Your task to perform on an android device: star an email in the gmail app Image 0: 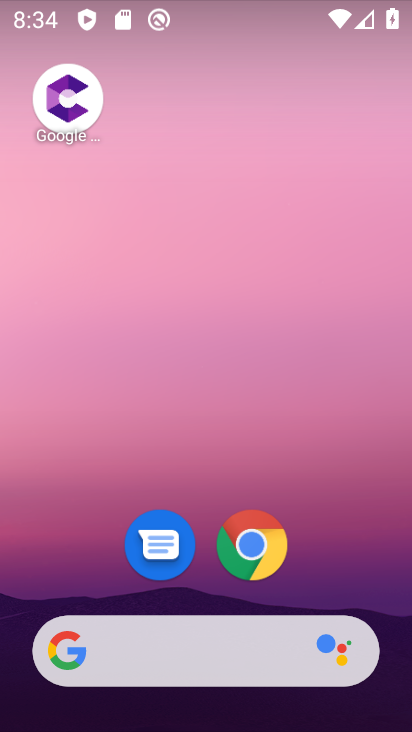
Step 0: drag from (331, 527) to (278, 18)
Your task to perform on an android device: star an email in the gmail app Image 1: 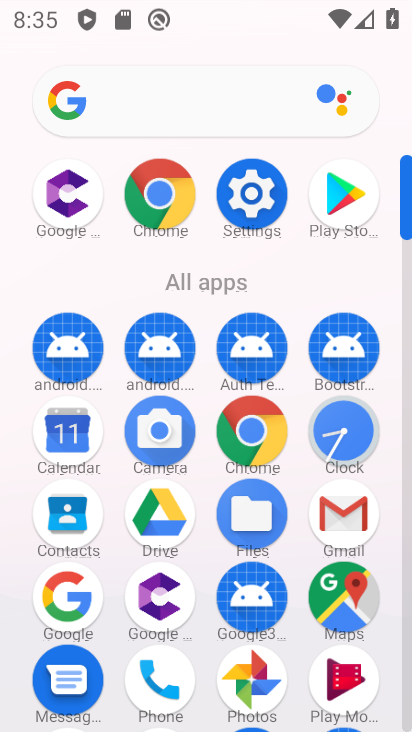
Step 1: drag from (12, 592) to (7, 301)
Your task to perform on an android device: star an email in the gmail app Image 2: 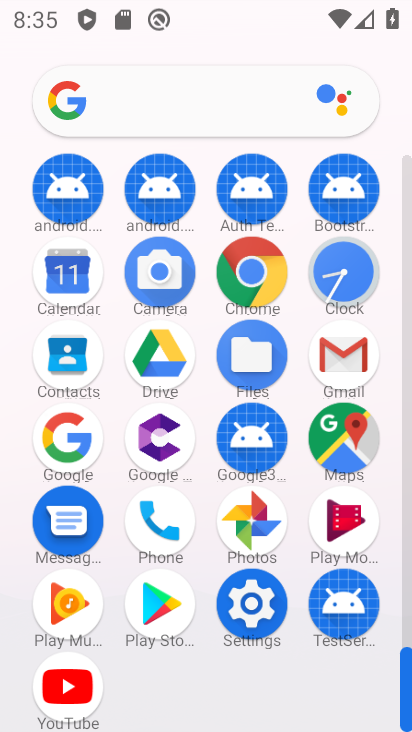
Step 2: click (339, 348)
Your task to perform on an android device: star an email in the gmail app Image 3: 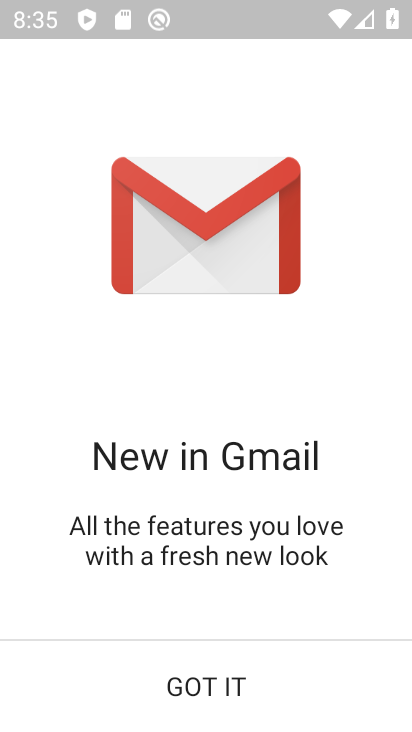
Step 3: click (209, 692)
Your task to perform on an android device: star an email in the gmail app Image 4: 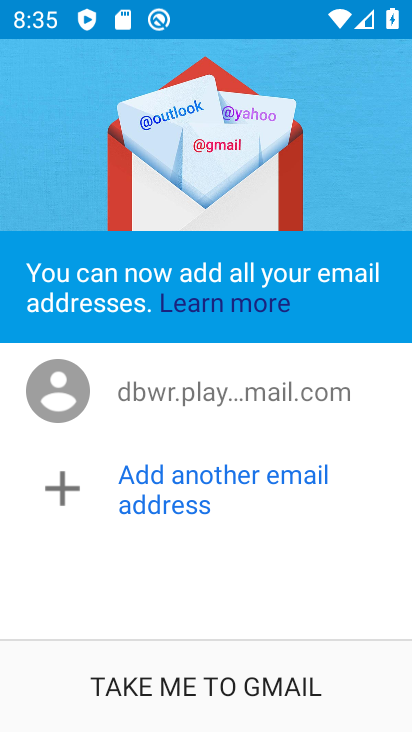
Step 4: click (208, 691)
Your task to perform on an android device: star an email in the gmail app Image 5: 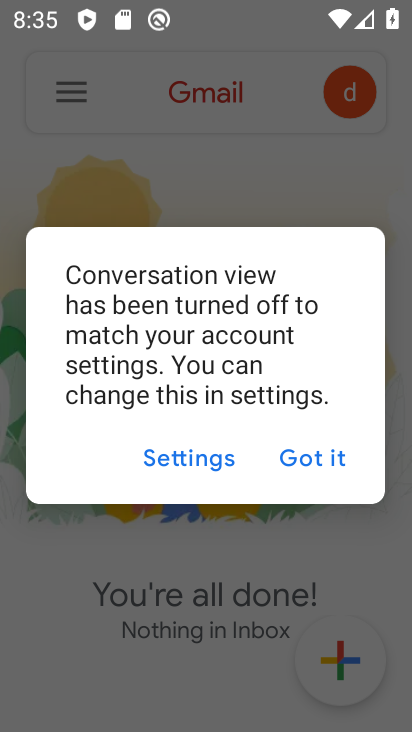
Step 5: click (291, 465)
Your task to perform on an android device: star an email in the gmail app Image 6: 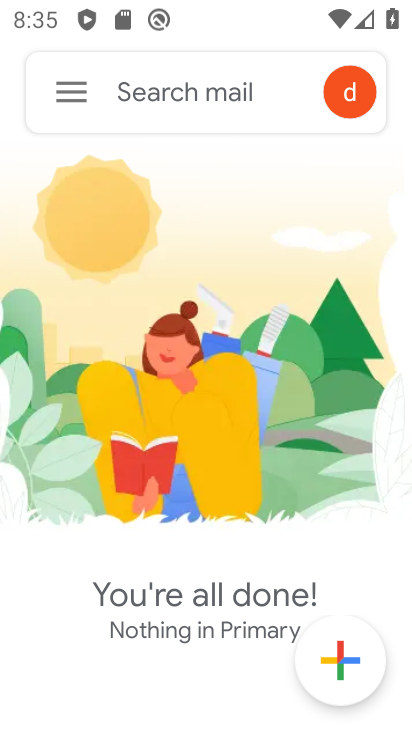
Step 6: click (72, 89)
Your task to perform on an android device: star an email in the gmail app Image 7: 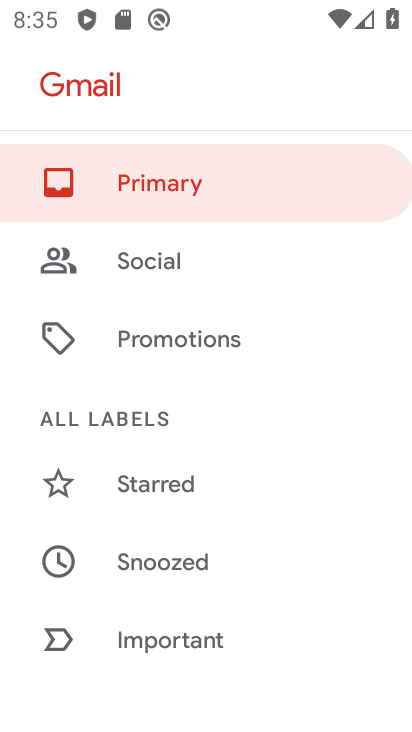
Step 7: drag from (255, 303) to (263, 639)
Your task to perform on an android device: star an email in the gmail app Image 8: 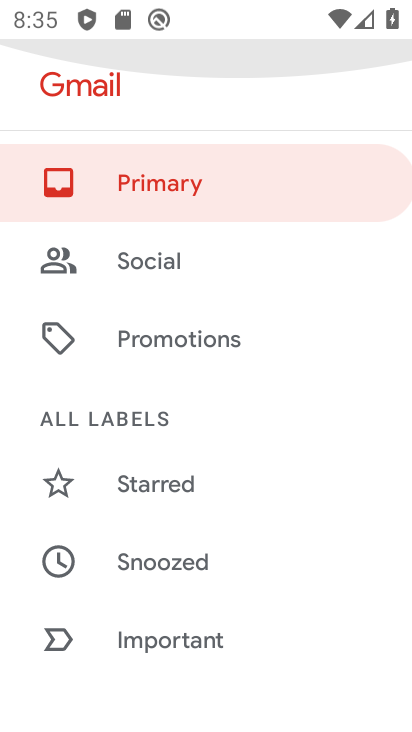
Step 8: drag from (264, 638) to (279, 220)
Your task to perform on an android device: star an email in the gmail app Image 9: 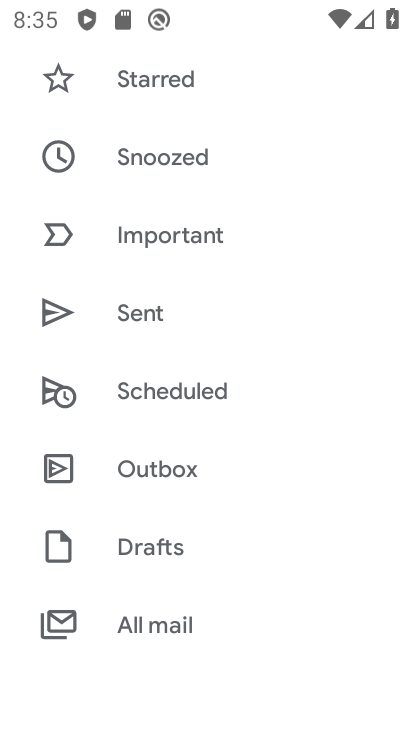
Step 9: click (177, 624)
Your task to perform on an android device: star an email in the gmail app Image 10: 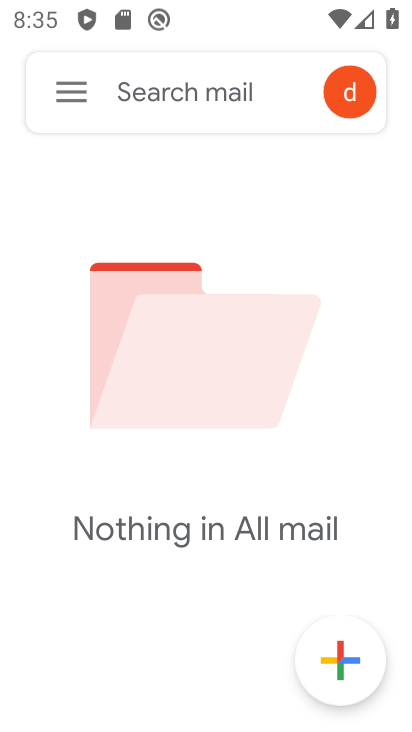
Step 10: click (76, 85)
Your task to perform on an android device: star an email in the gmail app Image 11: 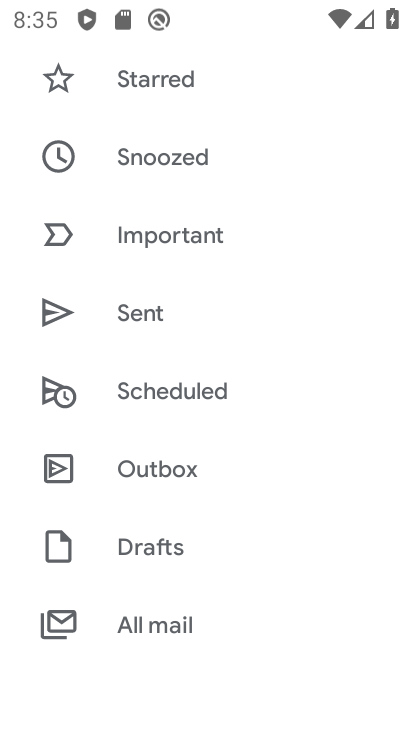
Step 11: drag from (245, 612) to (258, 134)
Your task to perform on an android device: star an email in the gmail app Image 12: 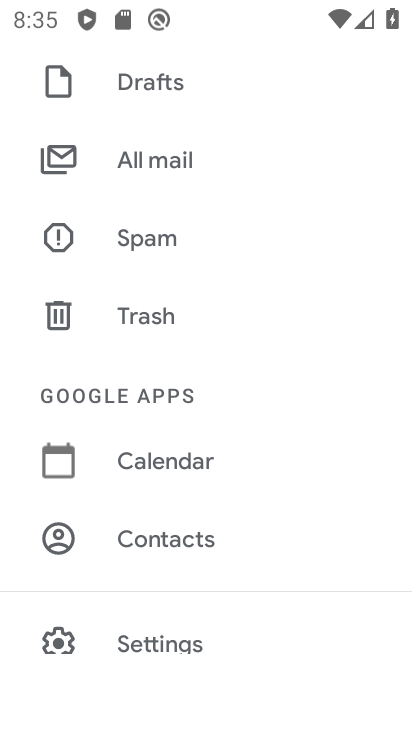
Step 12: drag from (226, 583) to (220, 176)
Your task to perform on an android device: star an email in the gmail app Image 13: 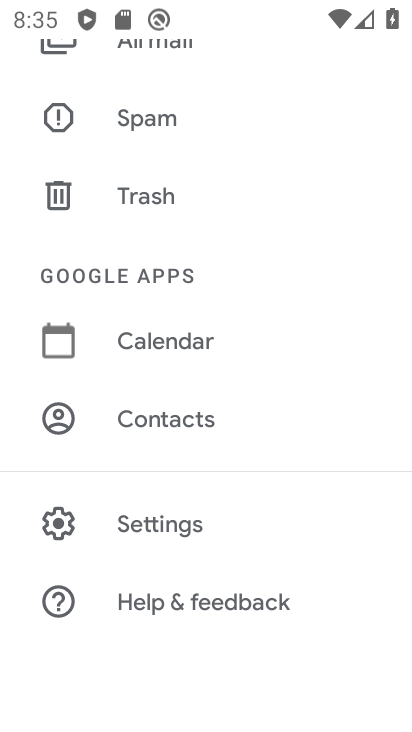
Step 13: drag from (222, 174) to (265, 463)
Your task to perform on an android device: star an email in the gmail app Image 14: 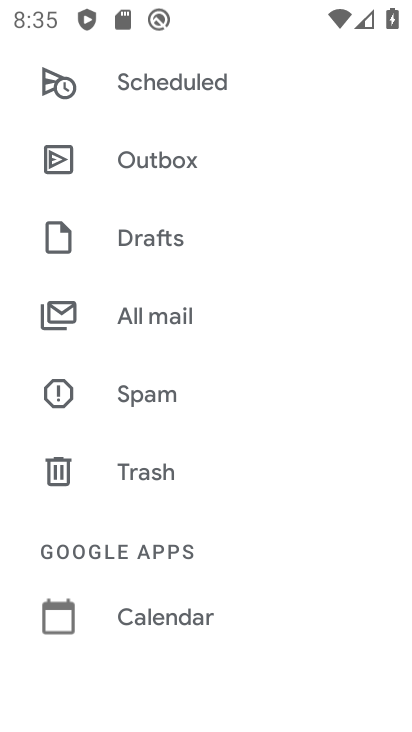
Step 14: drag from (283, 210) to (284, 575)
Your task to perform on an android device: star an email in the gmail app Image 15: 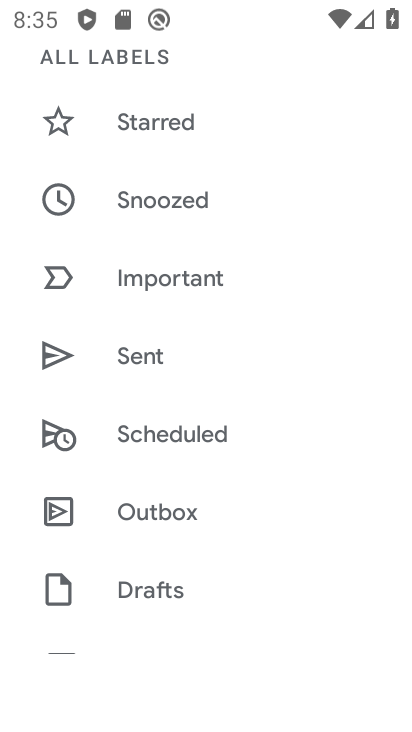
Step 15: drag from (263, 201) to (237, 576)
Your task to perform on an android device: star an email in the gmail app Image 16: 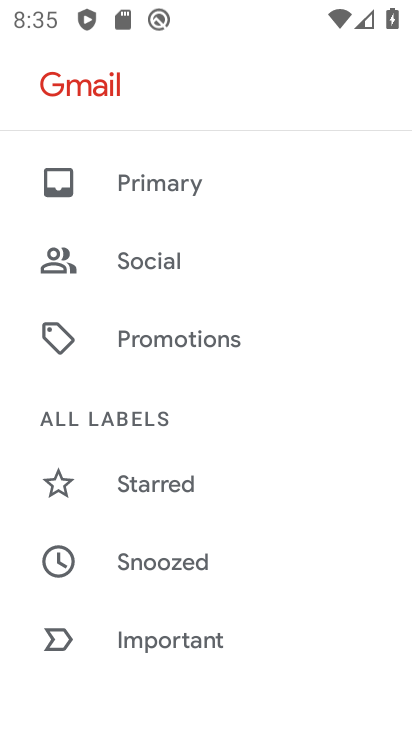
Step 16: click (183, 185)
Your task to perform on an android device: star an email in the gmail app Image 17: 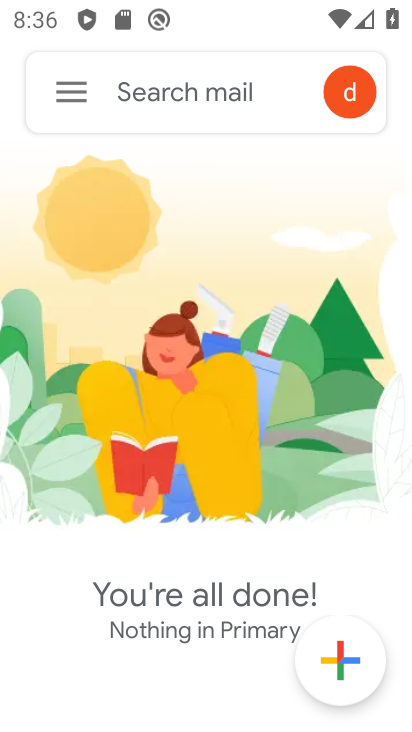
Step 17: task complete